Your task to perform on an android device: turn on translation in the chrome app Image 0: 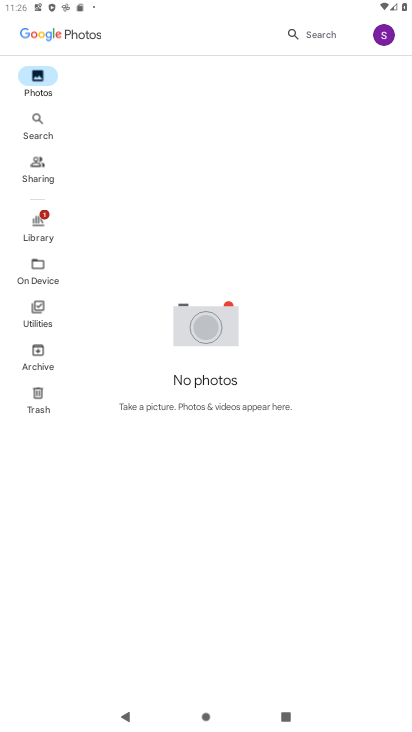
Step 0: press home button
Your task to perform on an android device: turn on translation in the chrome app Image 1: 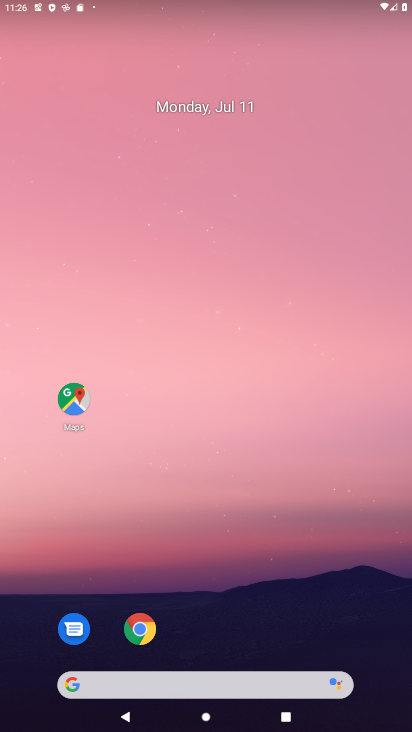
Step 1: drag from (245, 636) to (249, 204)
Your task to perform on an android device: turn on translation in the chrome app Image 2: 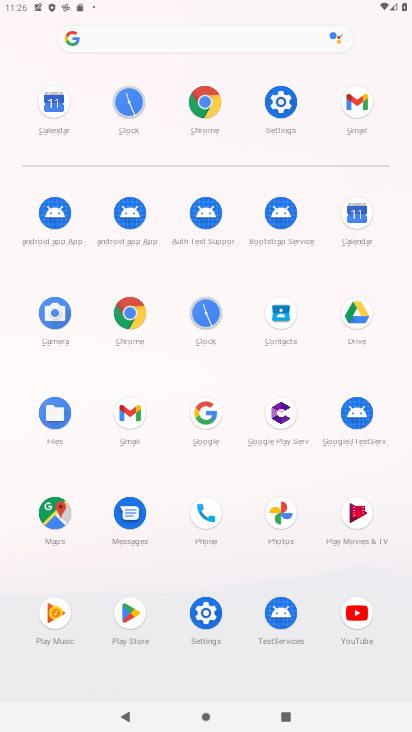
Step 2: click (197, 130)
Your task to perform on an android device: turn on translation in the chrome app Image 3: 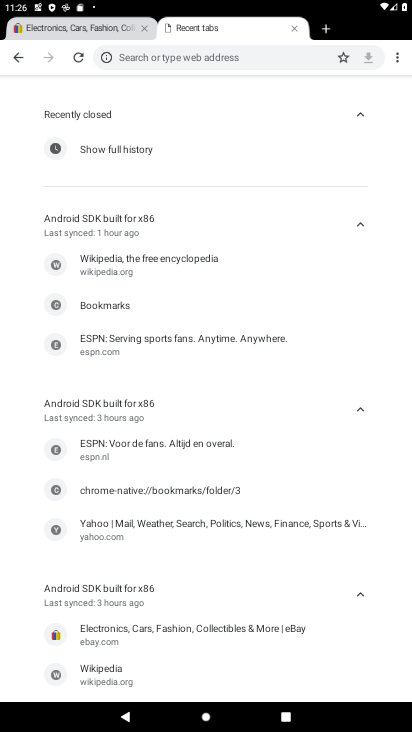
Step 3: click (394, 62)
Your task to perform on an android device: turn on translation in the chrome app Image 4: 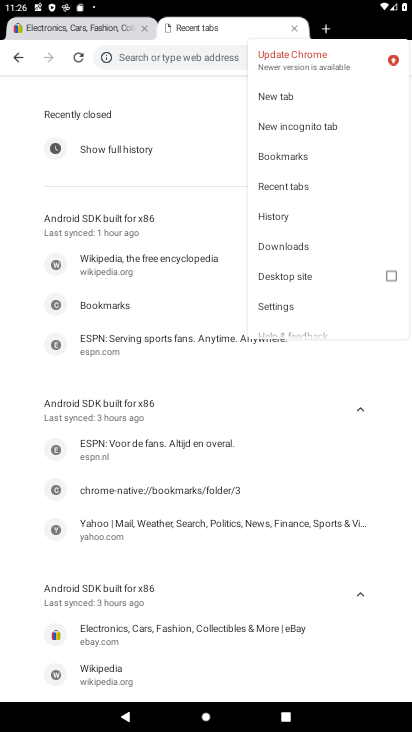
Step 4: click (284, 303)
Your task to perform on an android device: turn on translation in the chrome app Image 5: 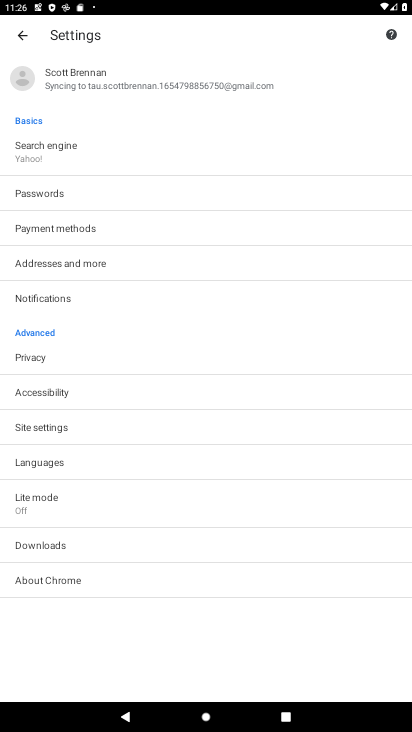
Step 5: click (166, 471)
Your task to perform on an android device: turn on translation in the chrome app Image 6: 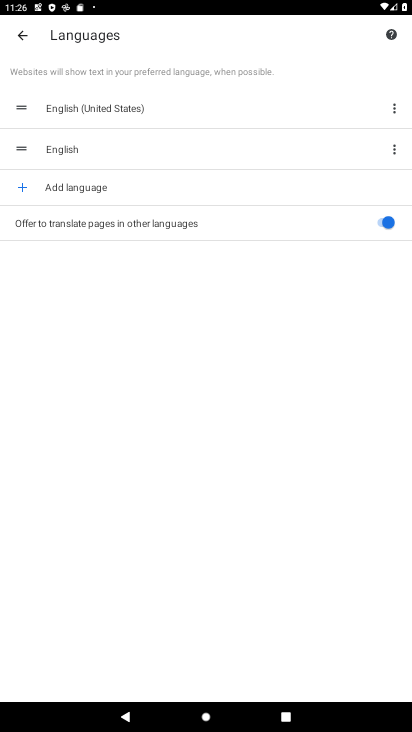
Step 6: task complete